Your task to perform on an android device: Go to internet settings Image 0: 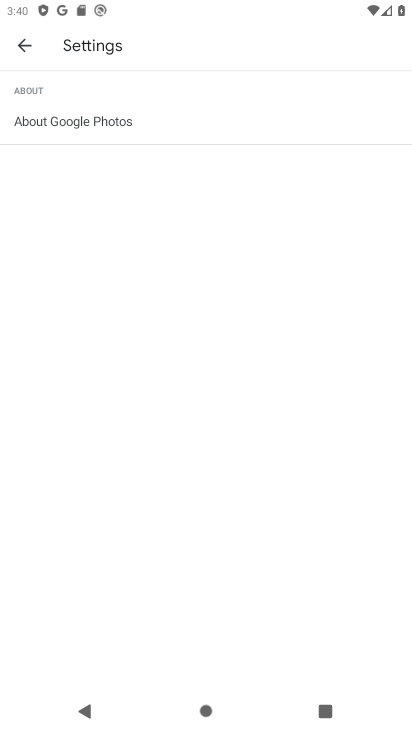
Step 0: drag from (218, 8) to (223, 650)
Your task to perform on an android device: Go to internet settings Image 1: 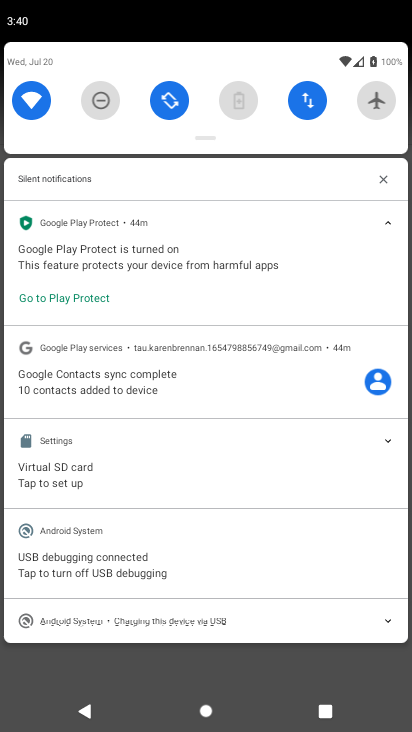
Step 1: click (306, 108)
Your task to perform on an android device: Go to internet settings Image 2: 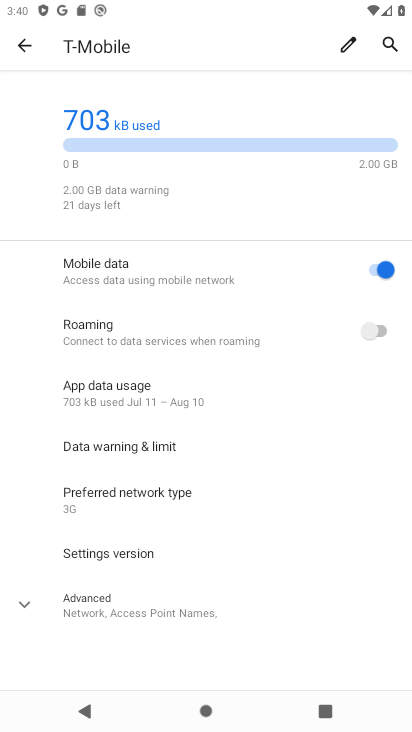
Step 2: task complete